Your task to perform on an android device: Go to Wikipedia Image 0: 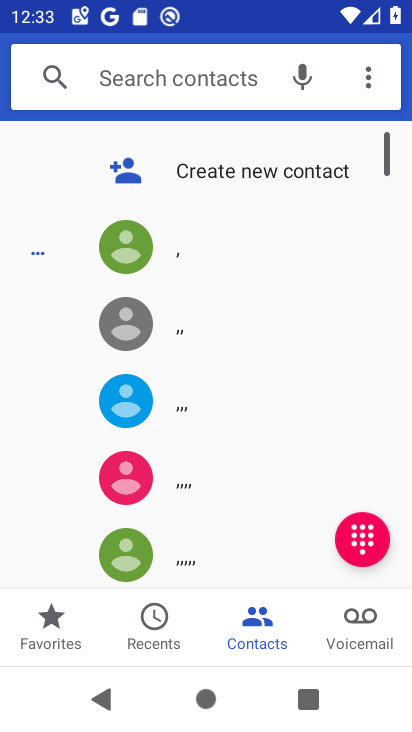
Step 0: press home button
Your task to perform on an android device: Go to Wikipedia Image 1: 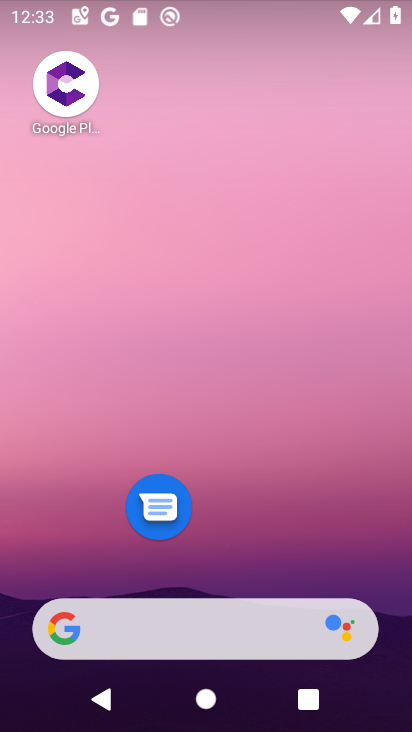
Step 1: drag from (303, 561) to (285, 33)
Your task to perform on an android device: Go to Wikipedia Image 2: 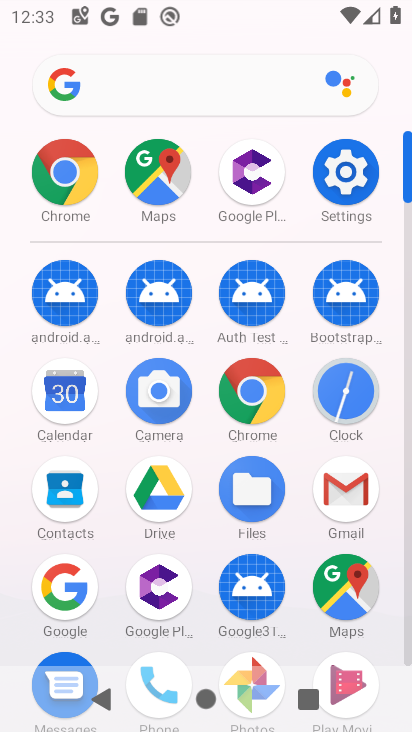
Step 2: click (246, 388)
Your task to perform on an android device: Go to Wikipedia Image 3: 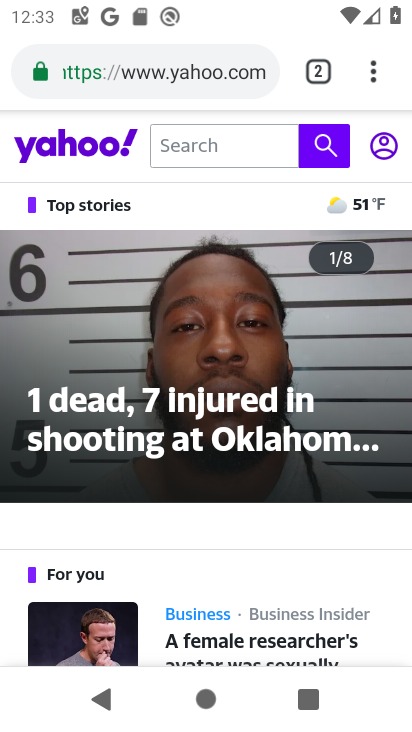
Step 3: click (191, 61)
Your task to perform on an android device: Go to Wikipedia Image 4: 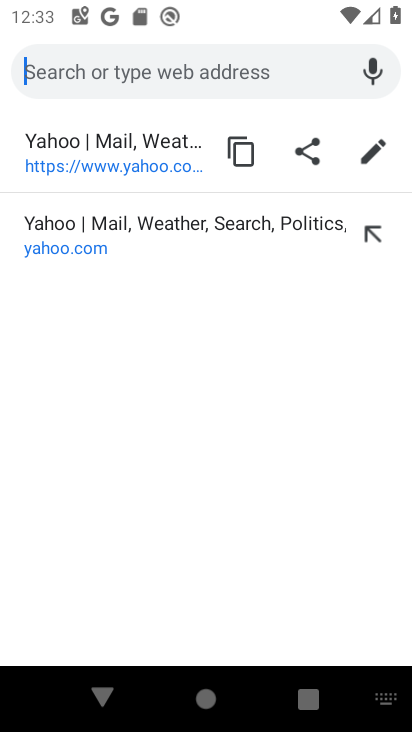
Step 4: type " Wikipedia"
Your task to perform on an android device: Go to Wikipedia Image 5: 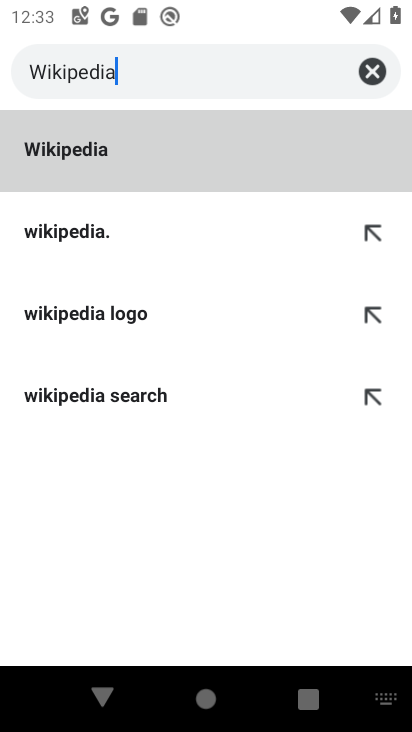
Step 5: click (85, 139)
Your task to perform on an android device: Go to Wikipedia Image 6: 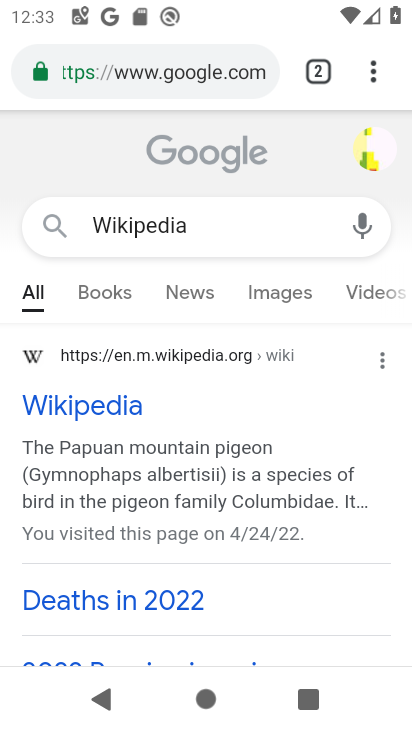
Step 6: click (122, 395)
Your task to perform on an android device: Go to Wikipedia Image 7: 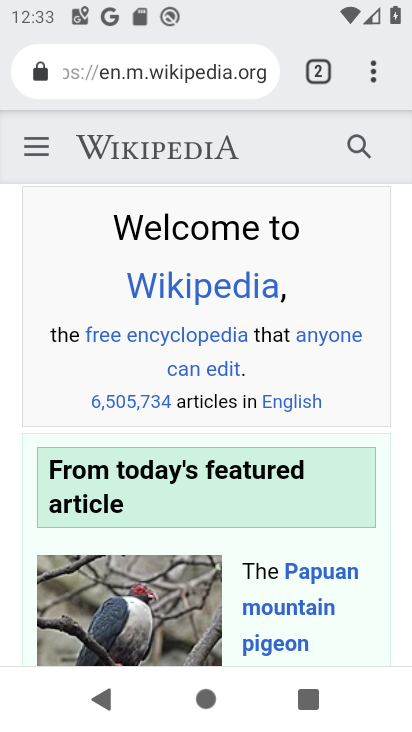
Step 7: task complete